Your task to perform on an android device: Show me recent news Image 0: 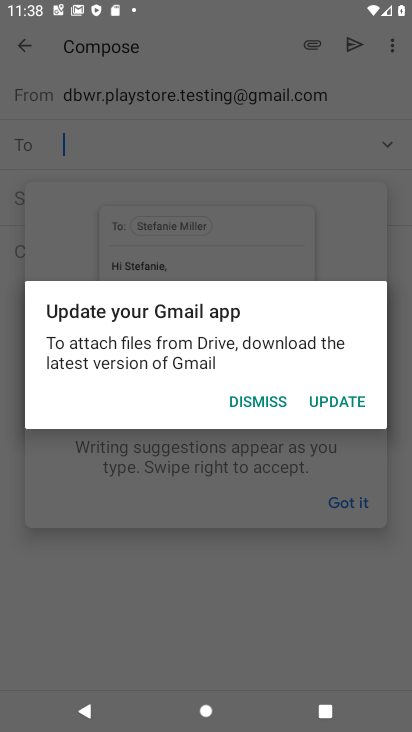
Step 0: press home button
Your task to perform on an android device: Show me recent news Image 1: 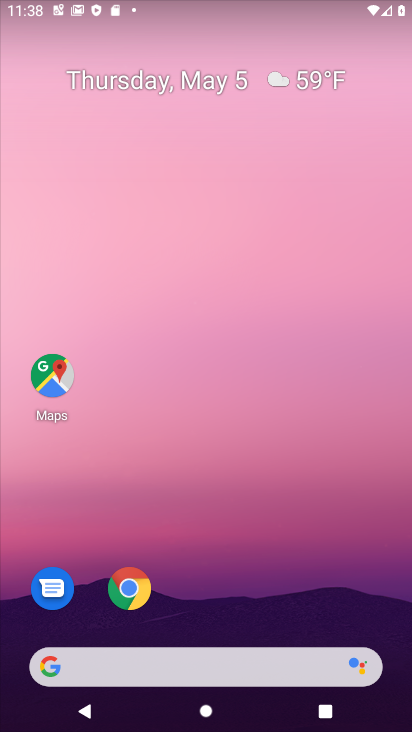
Step 1: click (180, 669)
Your task to perform on an android device: Show me recent news Image 2: 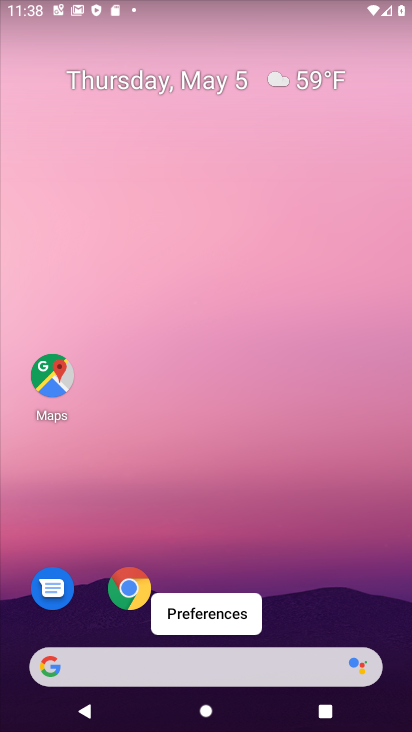
Step 2: drag from (180, 669) to (267, 396)
Your task to perform on an android device: Show me recent news Image 3: 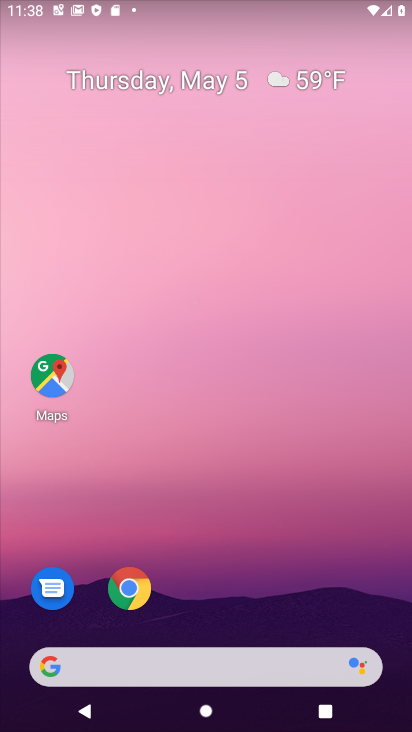
Step 3: click (41, 671)
Your task to perform on an android device: Show me recent news Image 4: 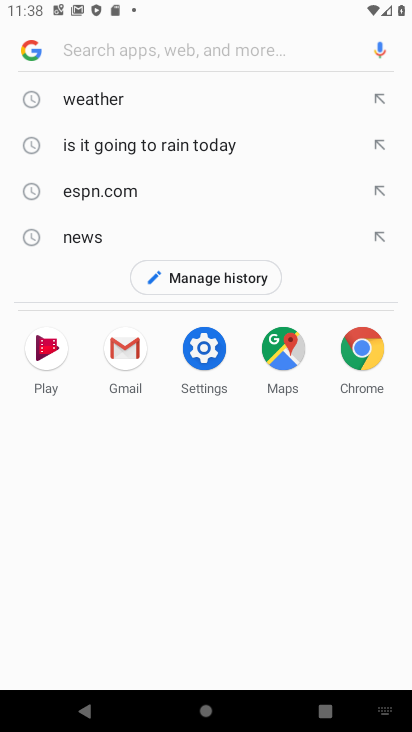
Step 4: click (90, 238)
Your task to perform on an android device: Show me recent news Image 5: 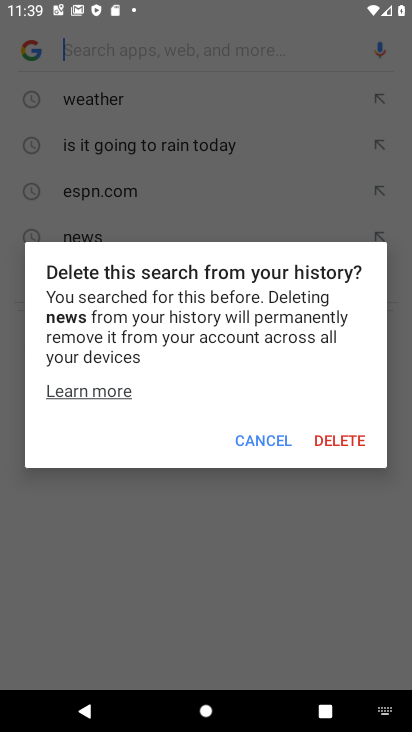
Step 5: click (248, 438)
Your task to perform on an android device: Show me recent news Image 6: 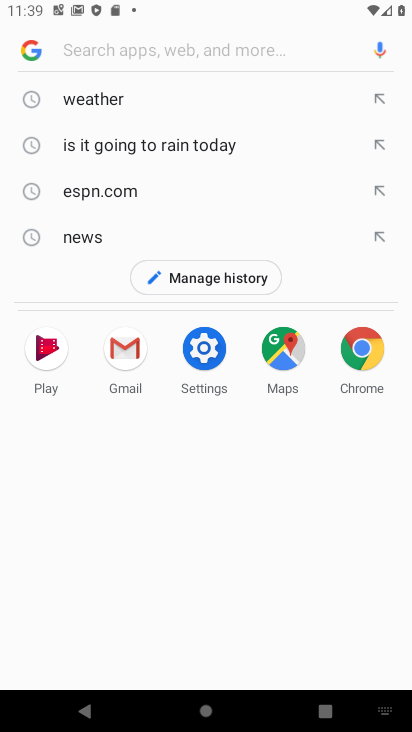
Step 6: click (97, 241)
Your task to perform on an android device: Show me recent news Image 7: 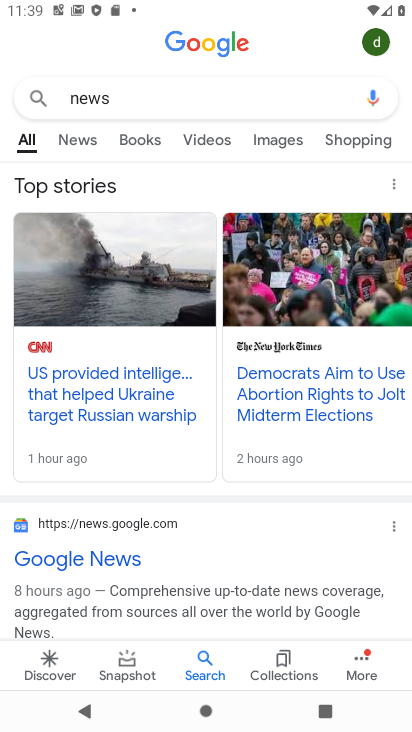
Step 7: task complete